Your task to perform on an android device: move an email to a new category in the gmail app Image 0: 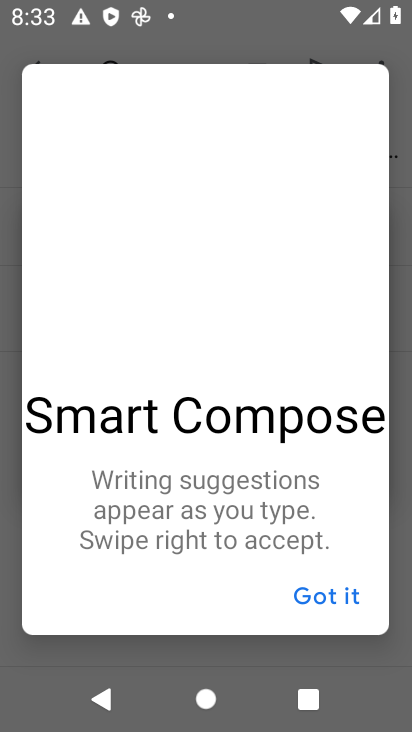
Step 0: press home button
Your task to perform on an android device: move an email to a new category in the gmail app Image 1: 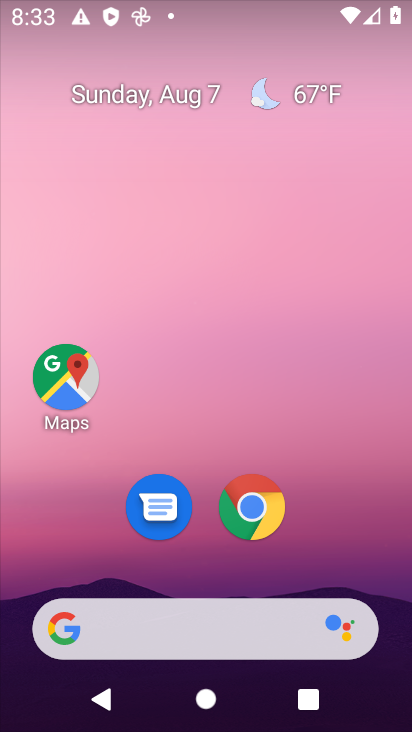
Step 1: drag from (170, 626) to (302, 89)
Your task to perform on an android device: move an email to a new category in the gmail app Image 2: 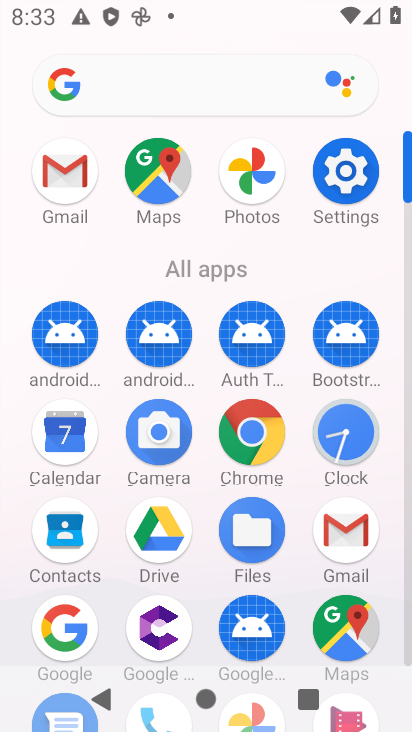
Step 2: click (67, 184)
Your task to perform on an android device: move an email to a new category in the gmail app Image 3: 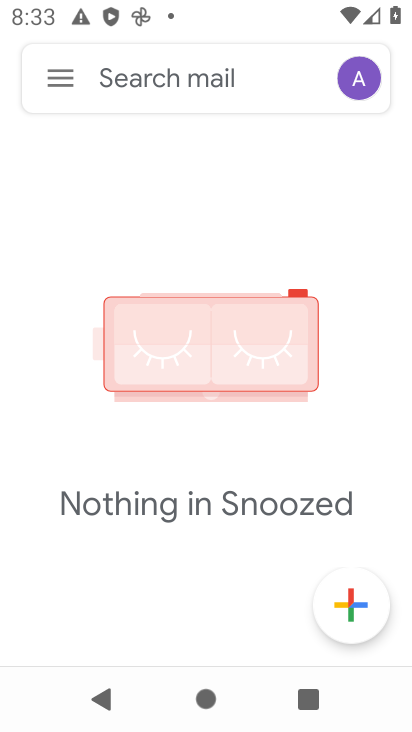
Step 3: click (56, 77)
Your task to perform on an android device: move an email to a new category in the gmail app Image 4: 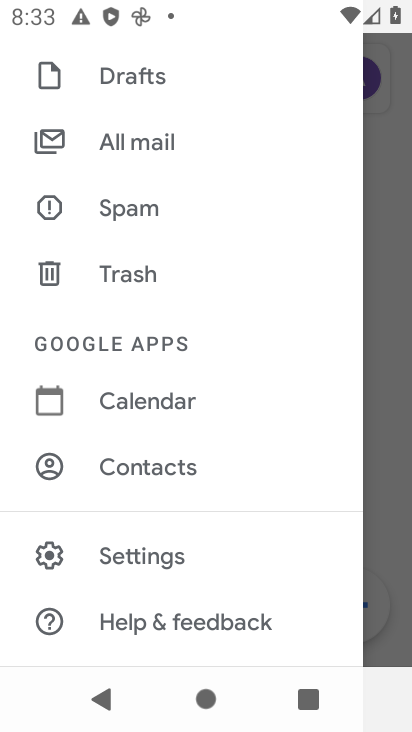
Step 4: click (139, 147)
Your task to perform on an android device: move an email to a new category in the gmail app Image 5: 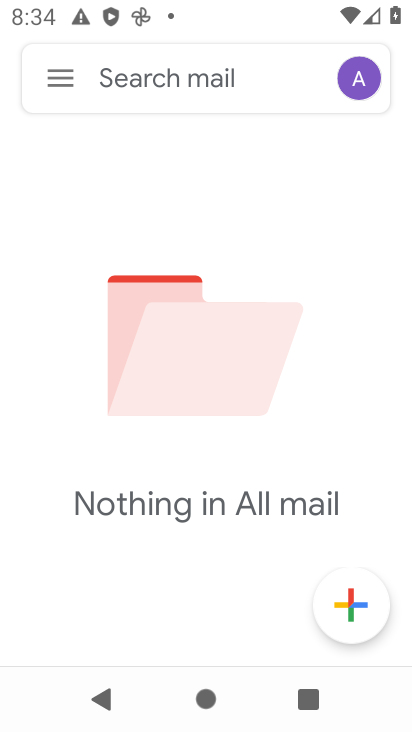
Step 5: task complete